Your task to perform on an android device: Open Google Chrome and open the bookmarks view Image 0: 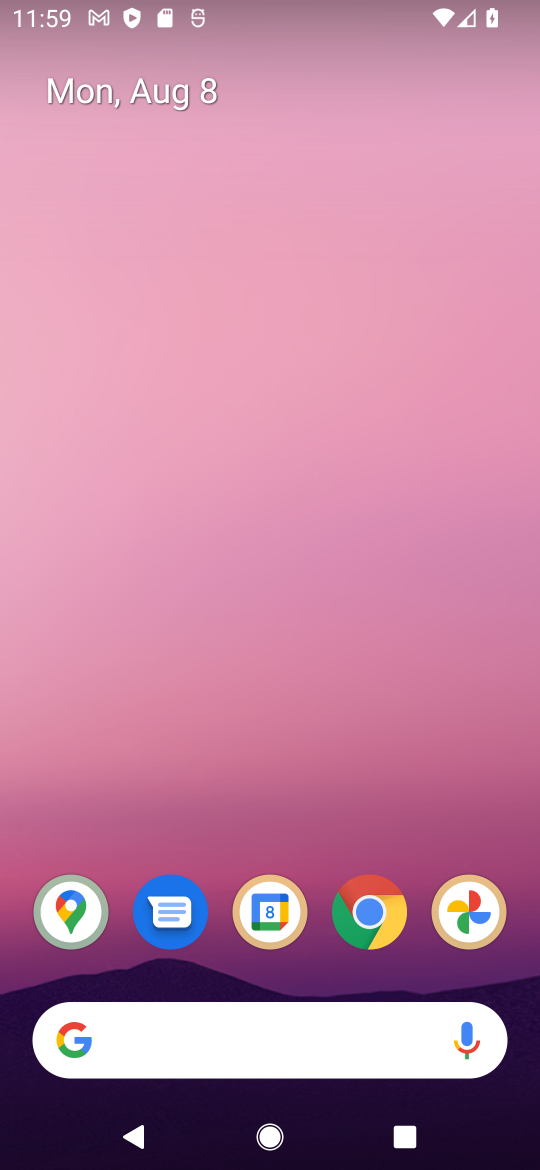
Step 0: click (380, 911)
Your task to perform on an android device: Open Google Chrome and open the bookmarks view Image 1: 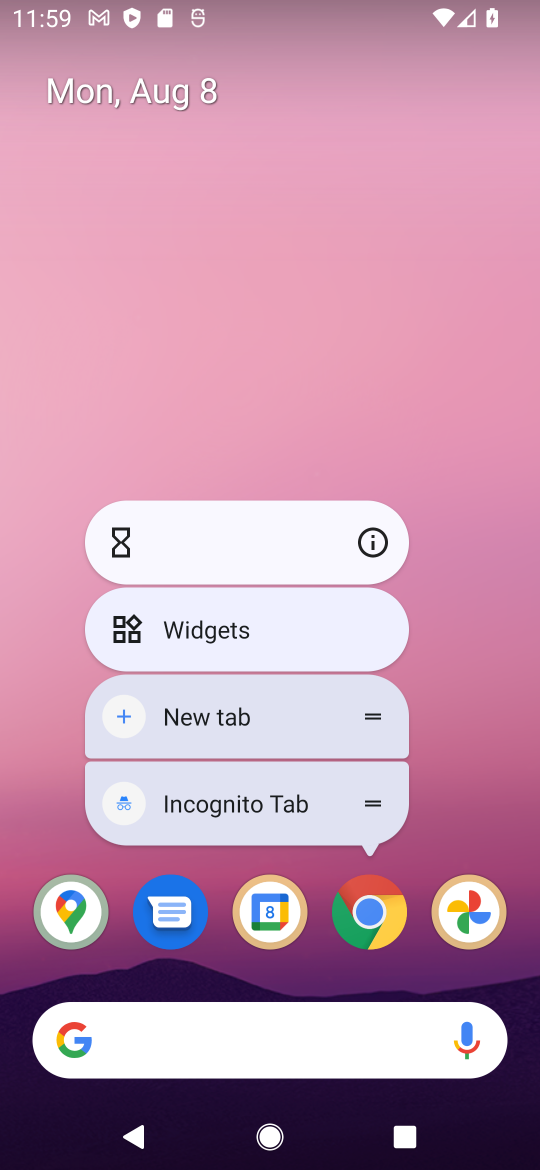
Step 1: click (380, 911)
Your task to perform on an android device: Open Google Chrome and open the bookmarks view Image 2: 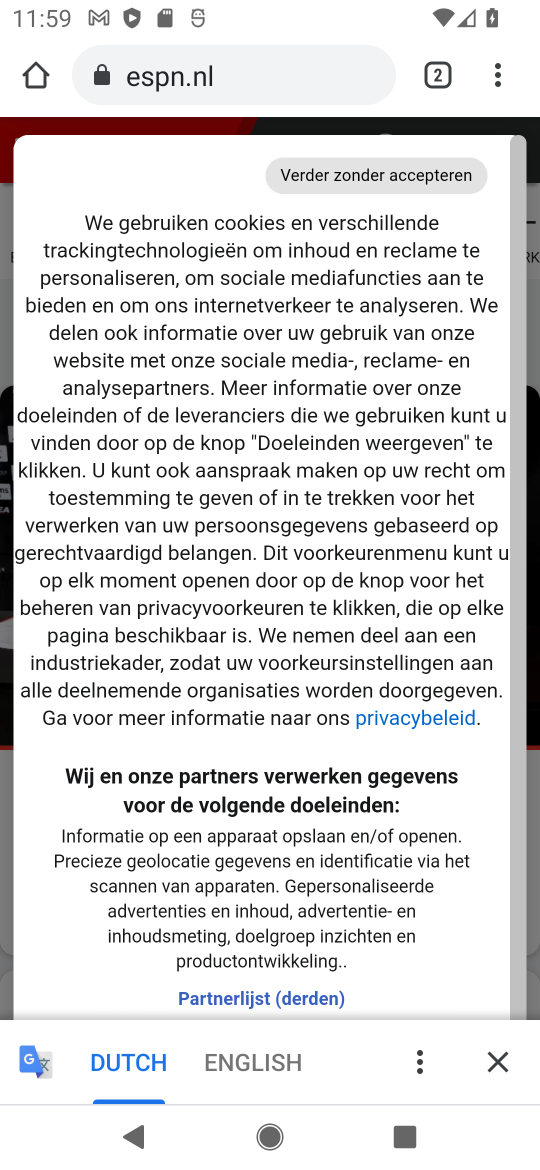
Step 2: task complete